Your task to perform on an android device: toggle notification dots Image 0: 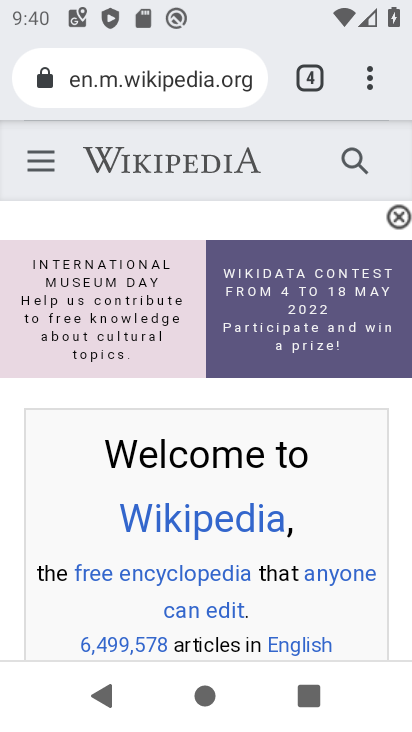
Step 0: press home button
Your task to perform on an android device: toggle notification dots Image 1: 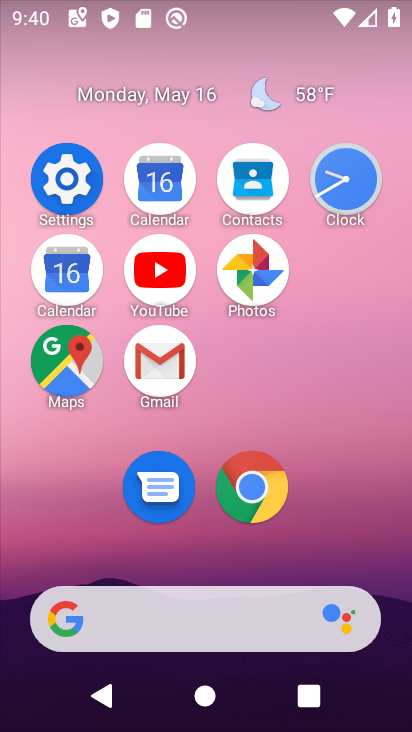
Step 1: click (66, 185)
Your task to perform on an android device: toggle notification dots Image 2: 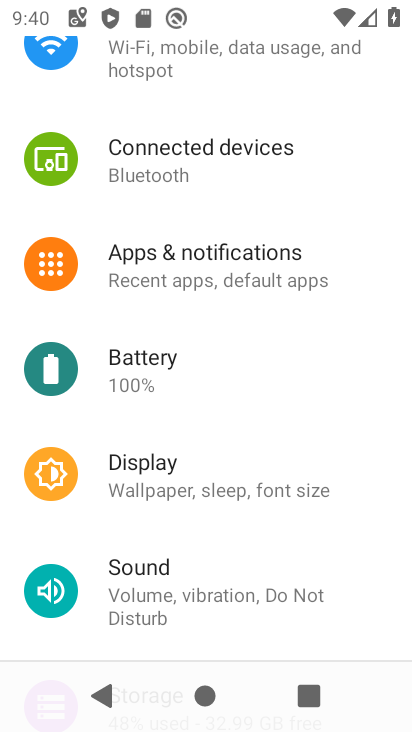
Step 2: click (246, 240)
Your task to perform on an android device: toggle notification dots Image 3: 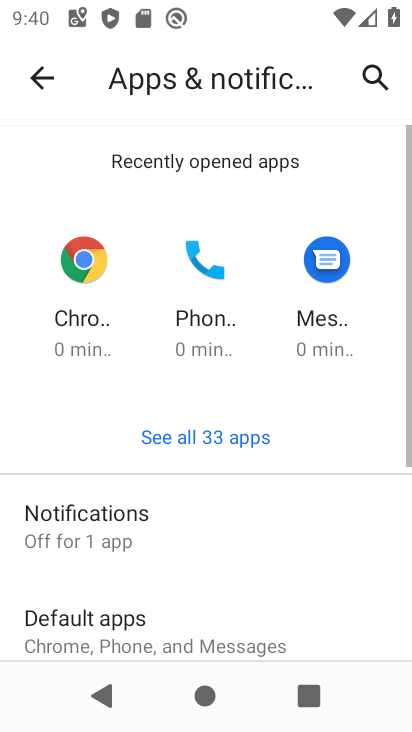
Step 3: click (139, 528)
Your task to perform on an android device: toggle notification dots Image 4: 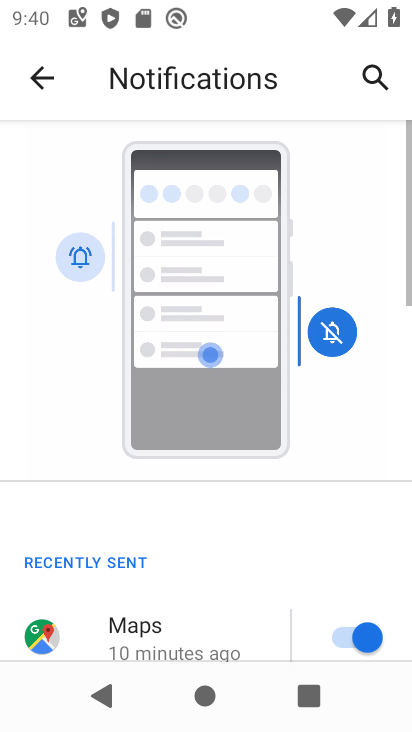
Step 4: drag from (197, 583) to (221, 32)
Your task to perform on an android device: toggle notification dots Image 5: 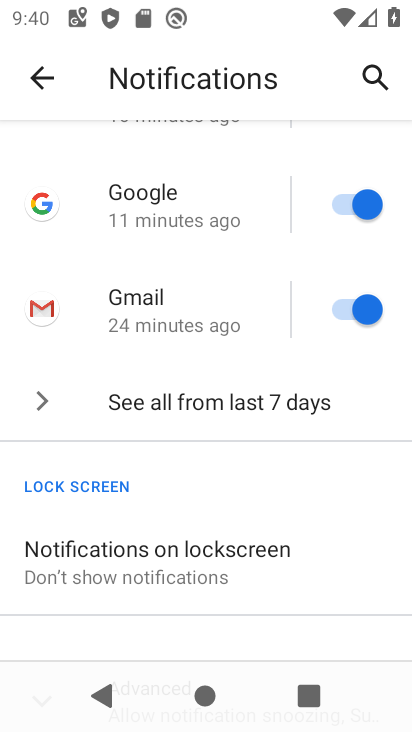
Step 5: drag from (205, 528) to (211, 110)
Your task to perform on an android device: toggle notification dots Image 6: 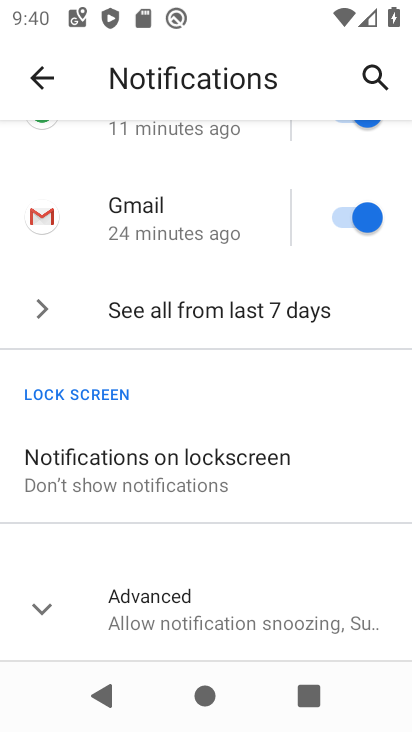
Step 6: click (176, 594)
Your task to perform on an android device: toggle notification dots Image 7: 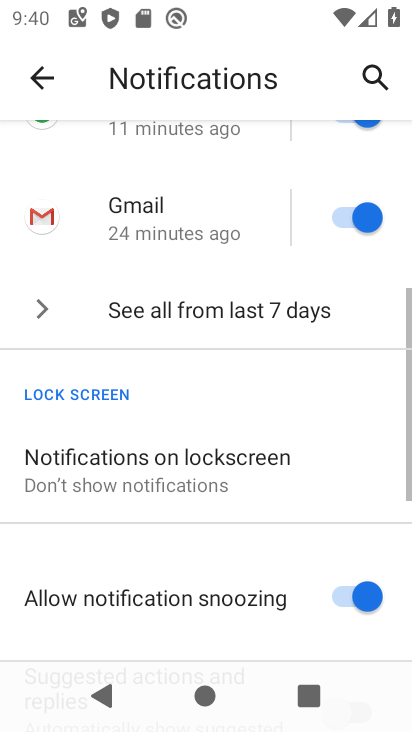
Step 7: drag from (165, 569) to (211, 112)
Your task to perform on an android device: toggle notification dots Image 8: 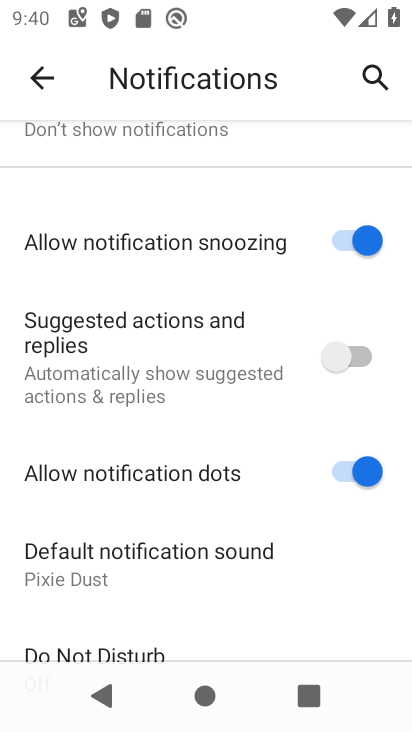
Step 8: click (359, 468)
Your task to perform on an android device: toggle notification dots Image 9: 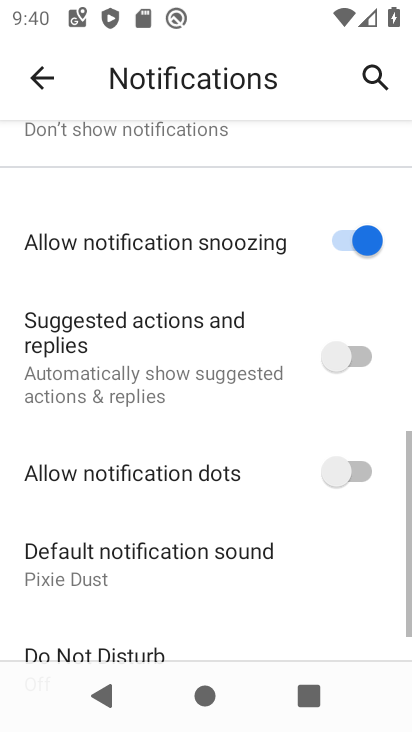
Step 9: task complete